Your task to perform on an android device: turn smart compose on in the gmail app Image 0: 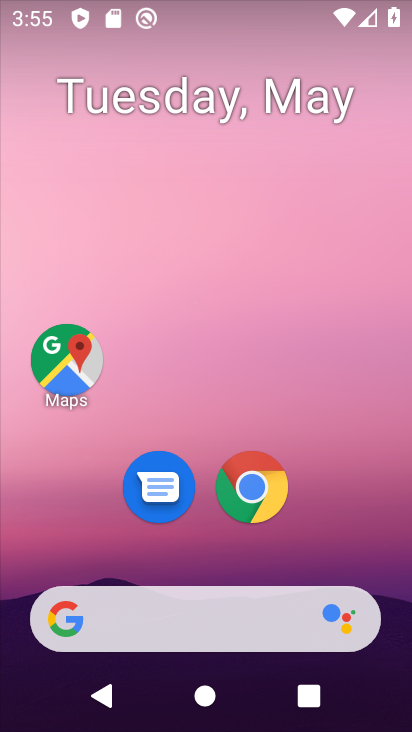
Step 0: drag from (333, 516) to (313, 125)
Your task to perform on an android device: turn smart compose on in the gmail app Image 1: 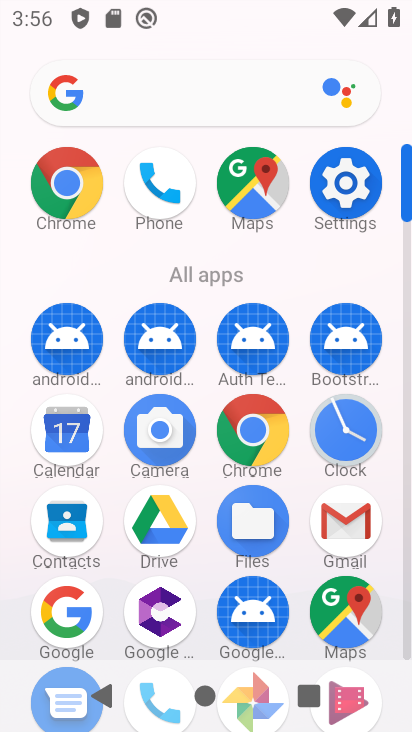
Step 1: click (340, 518)
Your task to perform on an android device: turn smart compose on in the gmail app Image 2: 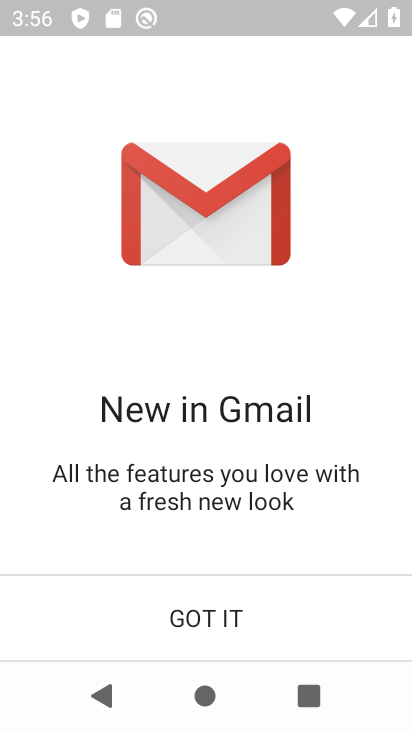
Step 2: click (168, 609)
Your task to perform on an android device: turn smart compose on in the gmail app Image 3: 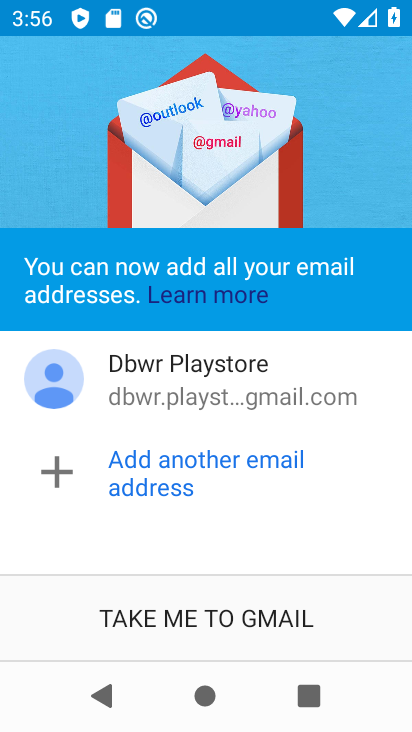
Step 3: click (168, 604)
Your task to perform on an android device: turn smart compose on in the gmail app Image 4: 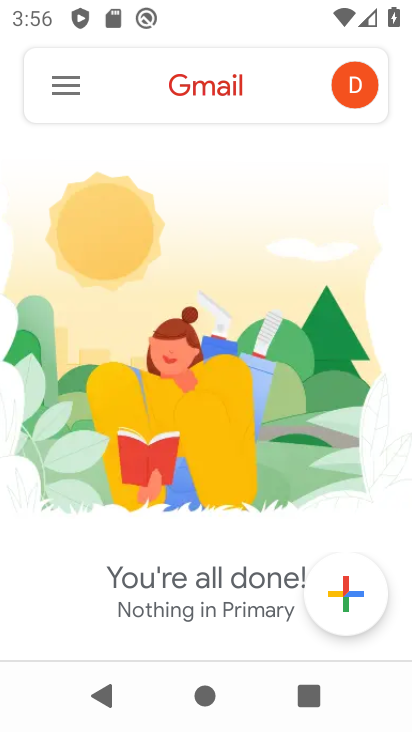
Step 4: click (51, 97)
Your task to perform on an android device: turn smart compose on in the gmail app Image 5: 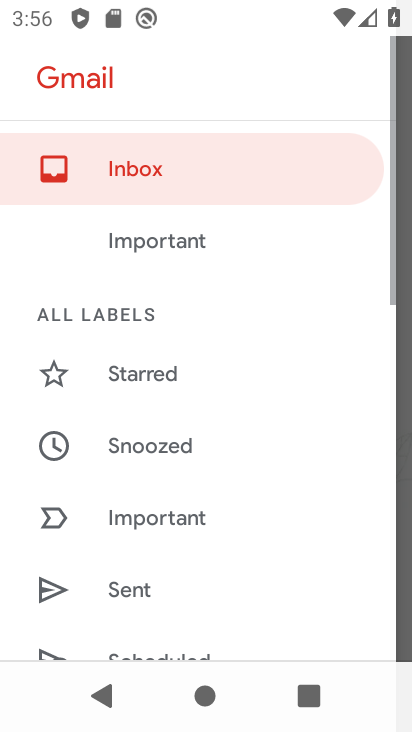
Step 5: drag from (128, 559) to (169, 155)
Your task to perform on an android device: turn smart compose on in the gmail app Image 6: 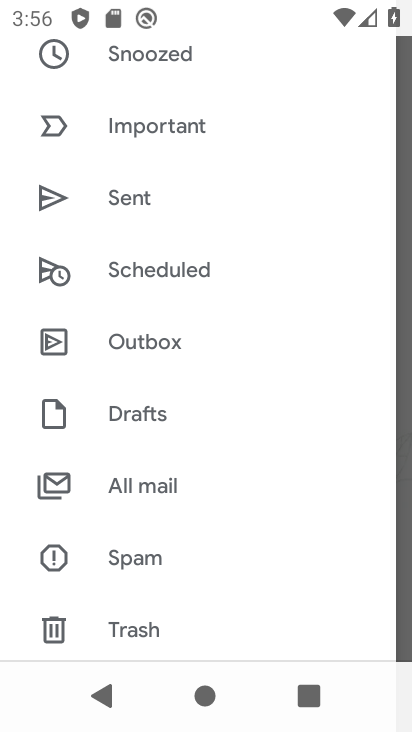
Step 6: drag from (168, 532) to (211, 178)
Your task to perform on an android device: turn smart compose on in the gmail app Image 7: 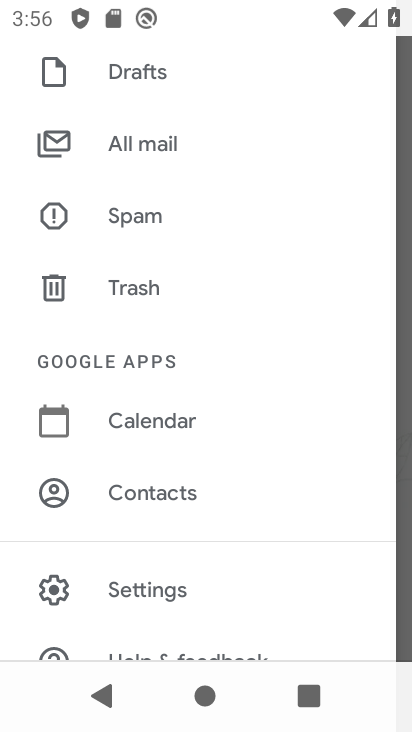
Step 7: drag from (180, 553) to (209, 277)
Your task to perform on an android device: turn smart compose on in the gmail app Image 8: 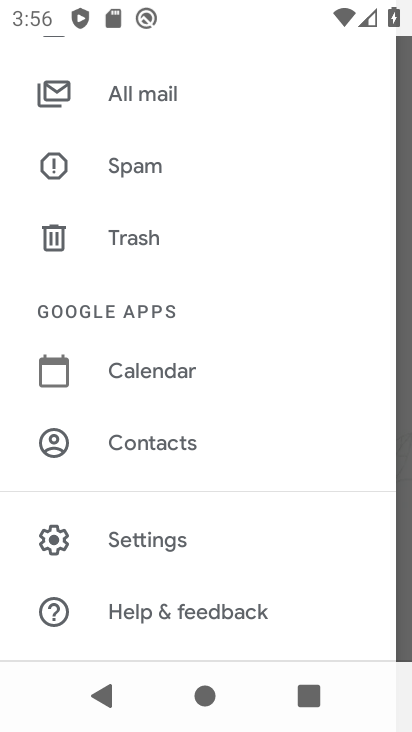
Step 8: click (153, 532)
Your task to perform on an android device: turn smart compose on in the gmail app Image 9: 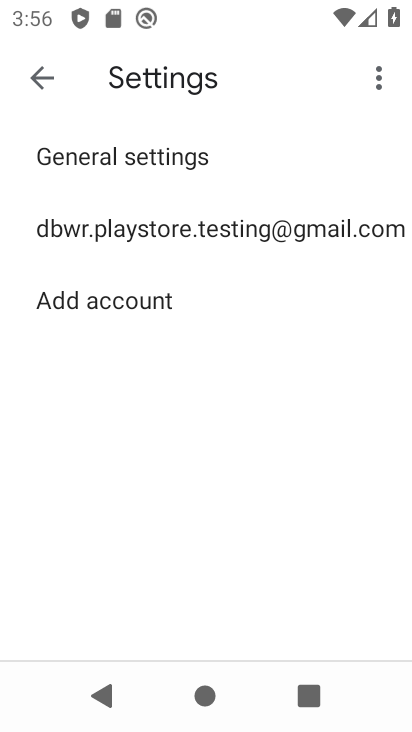
Step 9: click (264, 236)
Your task to perform on an android device: turn smart compose on in the gmail app Image 10: 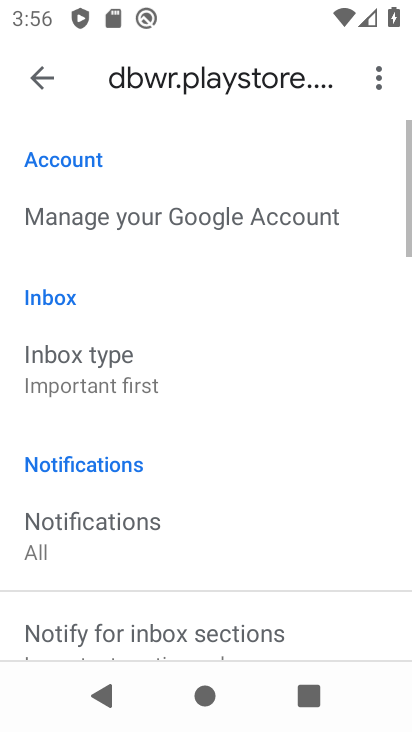
Step 10: drag from (258, 477) to (259, 78)
Your task to perform on an android device: turn smart compose on in the gmail app Image 11: 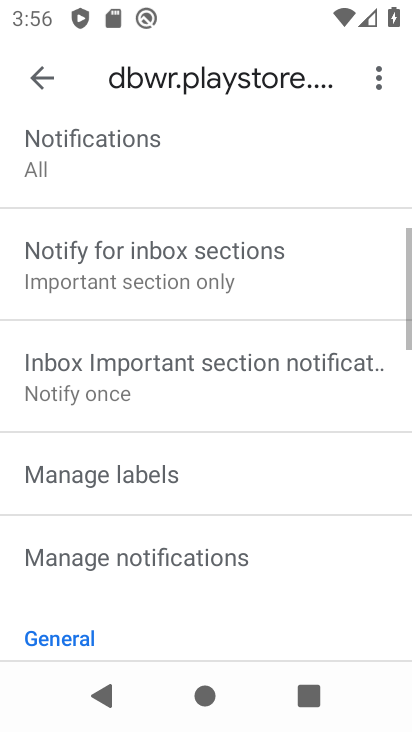
Step 11: click (259, 74)
Your task to perform on an android device: turn smart compose on in the gmail app Image 12: 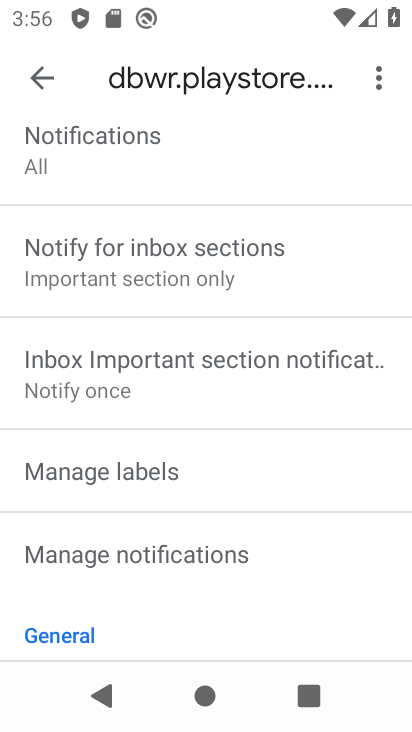
Step 12: task complete